Your task to perform on an android device: toggle javascript in the chrome app Image 0: 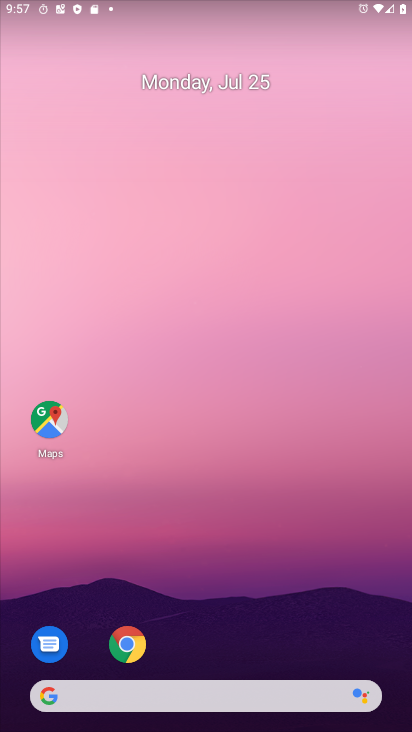
Step 0: drag from (252, 624) to (212, 147)
Your task to perform on an android device: toggle javascript in the chrome app Image 1: 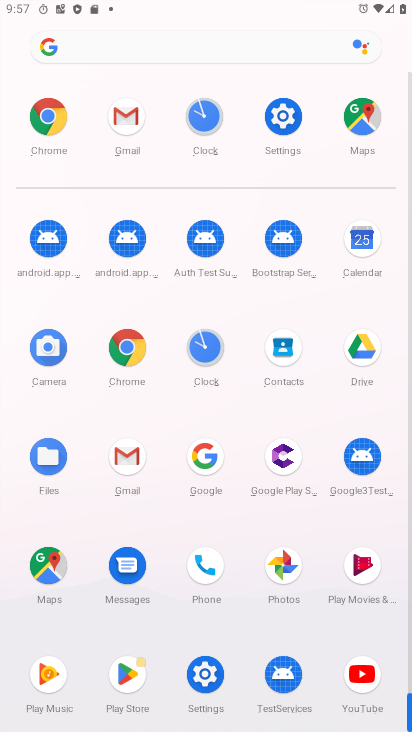
Step 1: click (130, 354)
Your task to perform on an android device: toggle javascript in the chrome app Image 2: 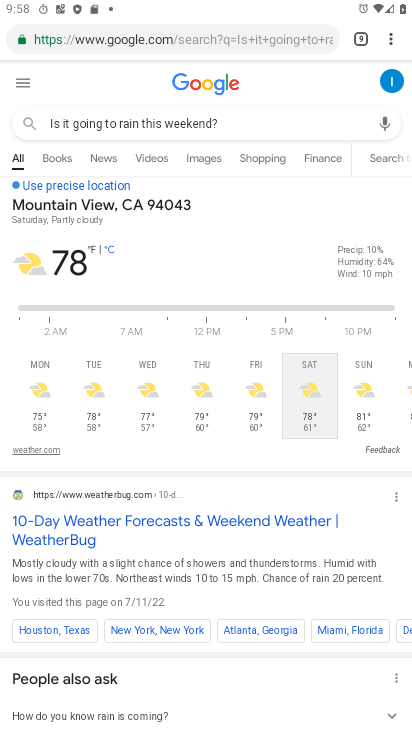
Step 2: click (394, 42)
Your task to perform on an android device: toggle javascript in the chrome app Image 3: 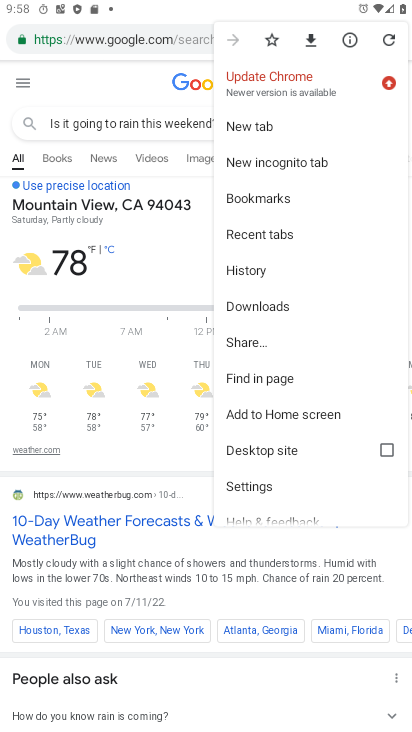
Step 3: click (289, 487)
Your task to perform on an android device: toggle javascript in the chrome app Image 4: 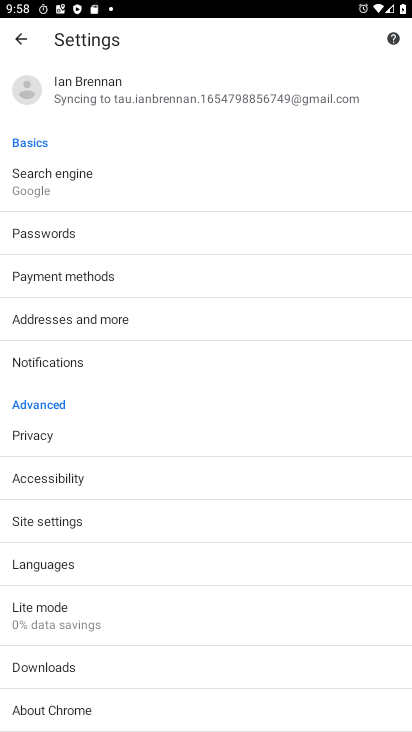
Step 4: click (71, 515)
Your task to perform on an android device: toggle javascript in the chrome app Image 5: 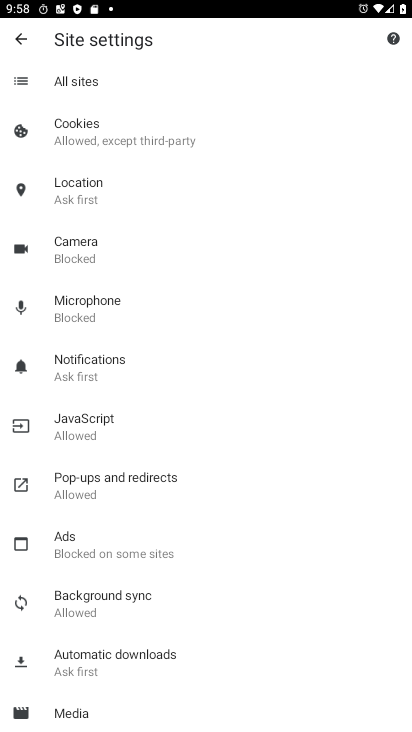
Step 5: click (80, 443)
Your task to perform on an android device: toggle javascript in the chrome app Image 6: 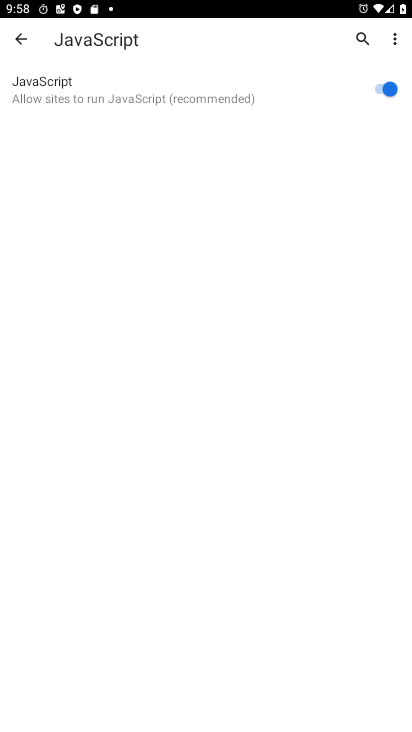
Step 6: click (387, 95)
Your task to perform on an android device: toggle javascript in the chrome app Image 7: 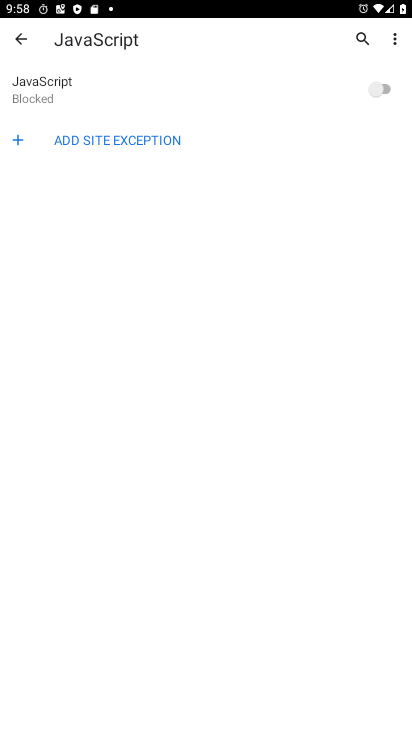
Step 7: task complete